Your task to perform on an android device: allow cookies in the chrome app Image 0: 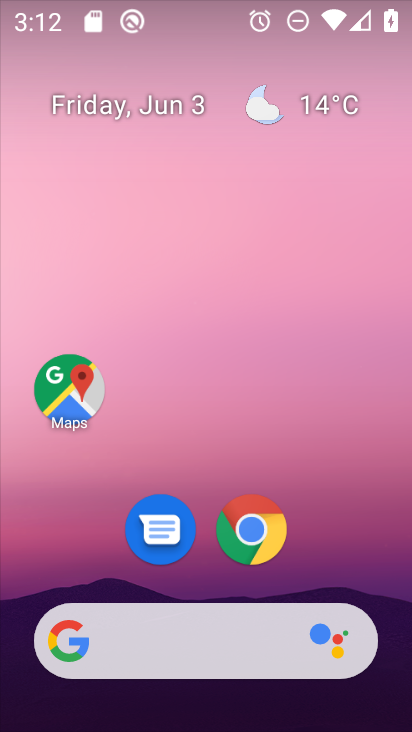
Step 0: drag from (354, 559) to (354, 245)
Your task to perform on an android device: allow cookies in the chrome app Image 1: 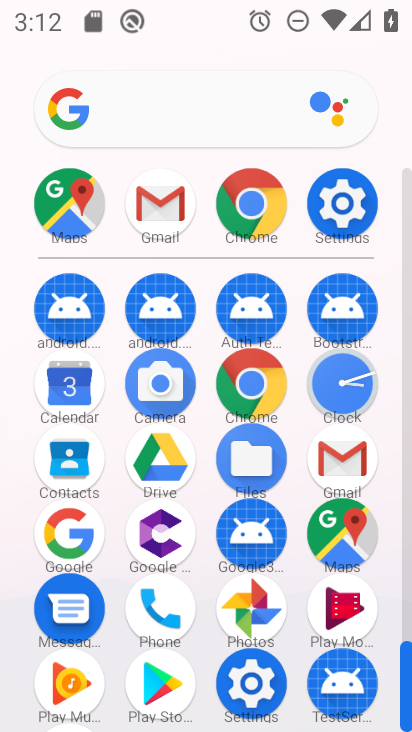
Step 1: click (268, 381)
Your task to perform on an android device: allow cookies in the chrome app Image 2: 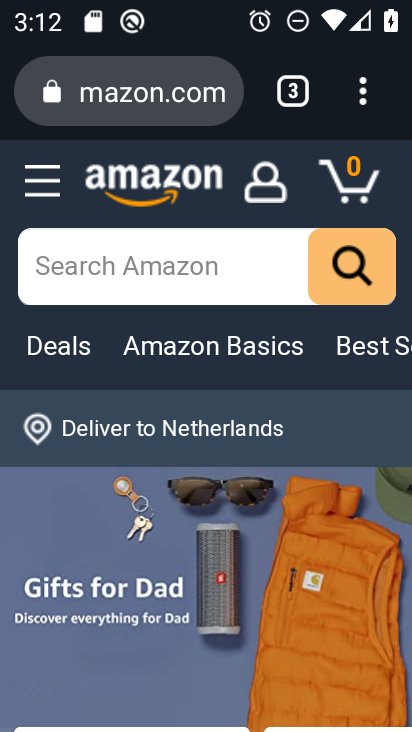
Step 2: click (365, 109)
Your task to perform on an android device: allow cookies in the chrome app Image 3: 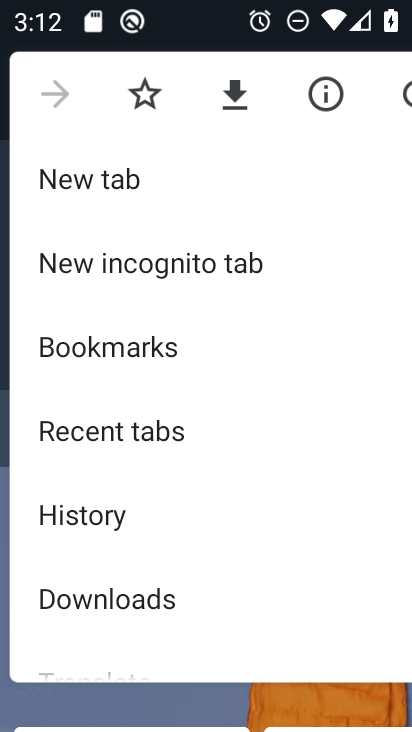
Step 3: drag from (312, 490) to (314, 352)
Your task to perform on an android device: allow cookies in the chrome app Image 4: 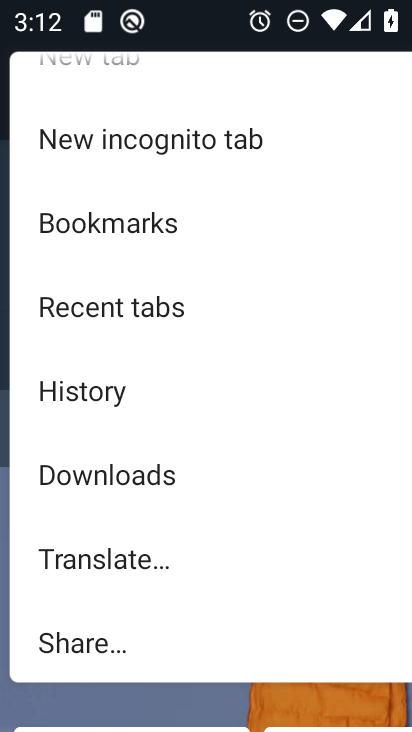
Step 4: drag from (322, 485) to (329, 351)
Your task to perform on an android device: allow cookies in the chrome app Image 5: 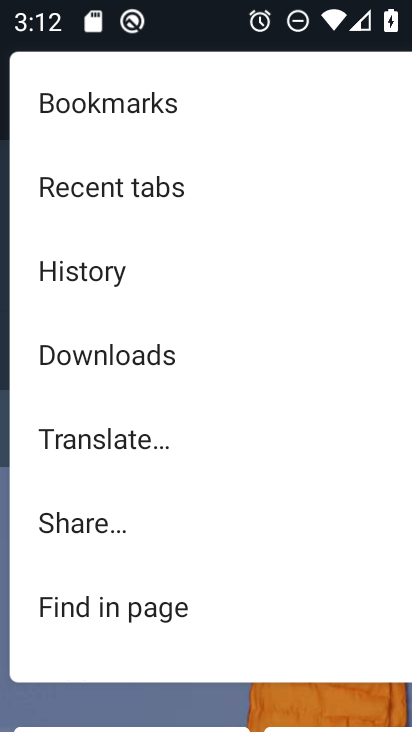
Step 5: drag from (303, 480) to (308, 352)
Your task to perform on an android device: allow cookies in the chrome app Image 6: 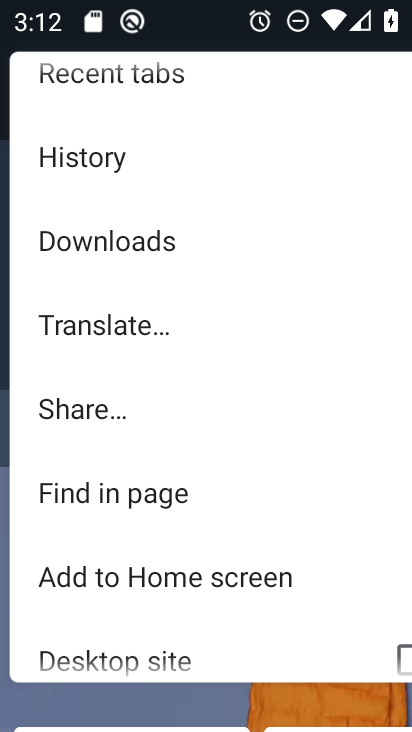
Step 6: drag from (305, 467) to (326, 262)
Your task to perform on an android device: allow cookies in the chrome app Image 7: 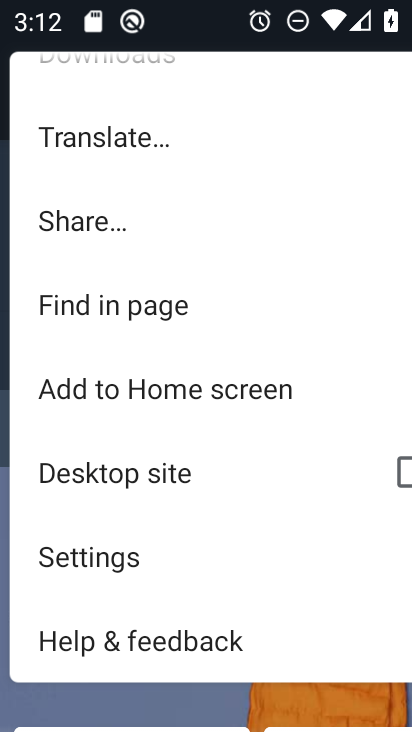
Step 7: drag from (308, 502) to (328, 374)
Your task to perform on an android device: allow cookies in the chrome app Image 8: 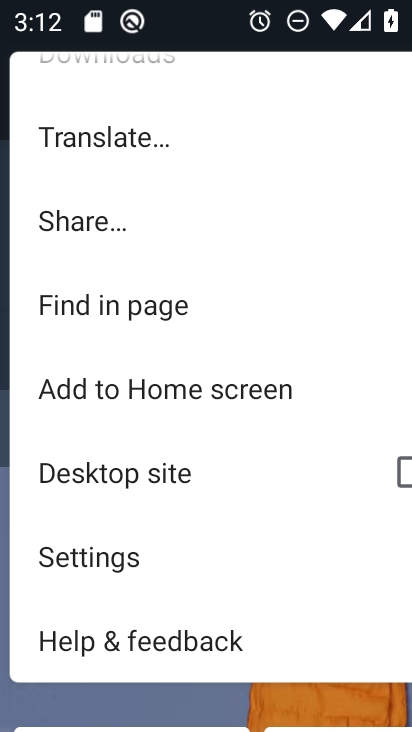
Step 8: click (163, 557)
Your task to perform on an android device: allow cookies in the chrome app Image 9: 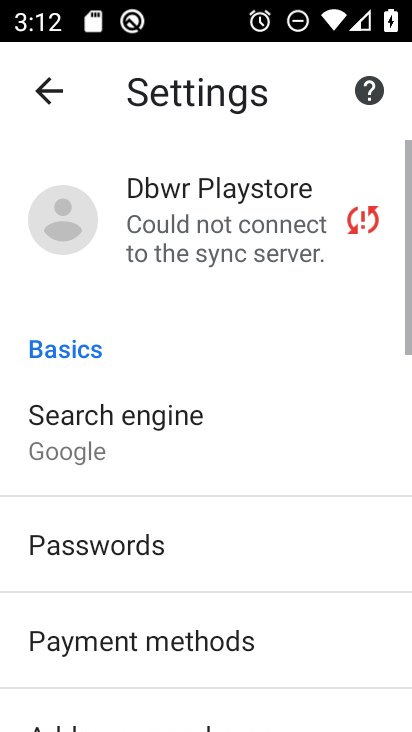
Step 9: drag from (304, 531) to (315, 393)
Your task to perform on an android device: allow cookies in the chrome app Image 10: 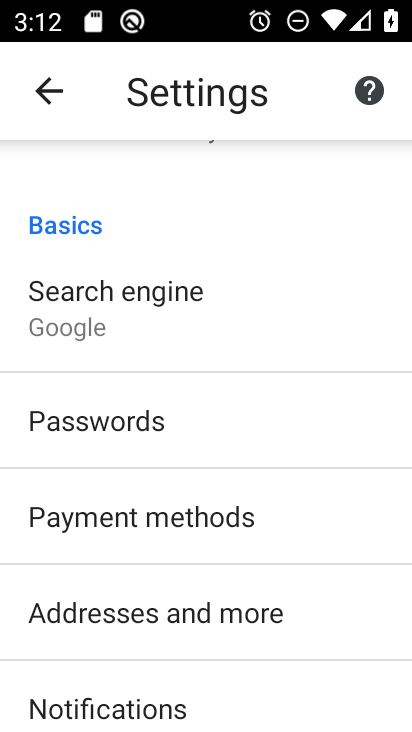
Step 10: drag from (306, 575) to (322, 476)
Your task to perform on an android device: allow cookies in the chrome app Image 11: 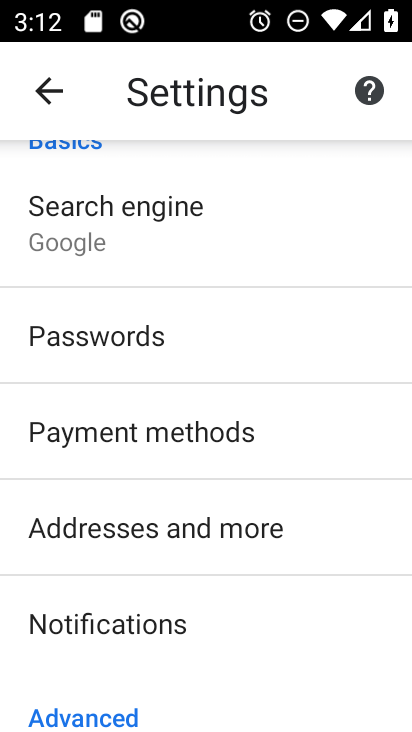
Step 11: drag from (324, 602) to (303, 399)
Your task to perform on an android device: allow cookies in the chrome app Image 12: 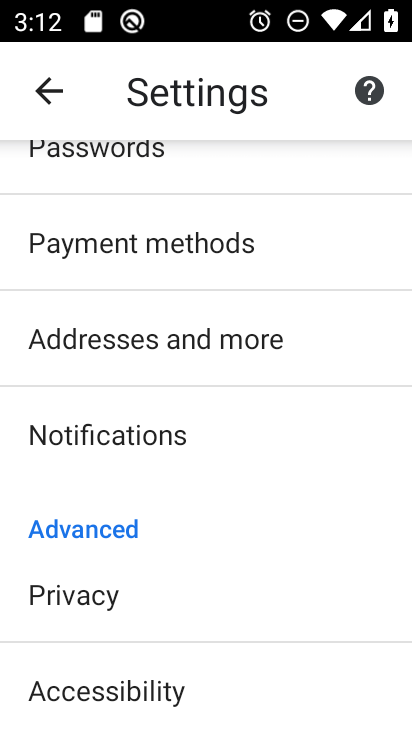
Step 12: drag from (293, 547) to (291, 343)
Your task to perform on an android device: allow cookies in the chrome app Image 13: 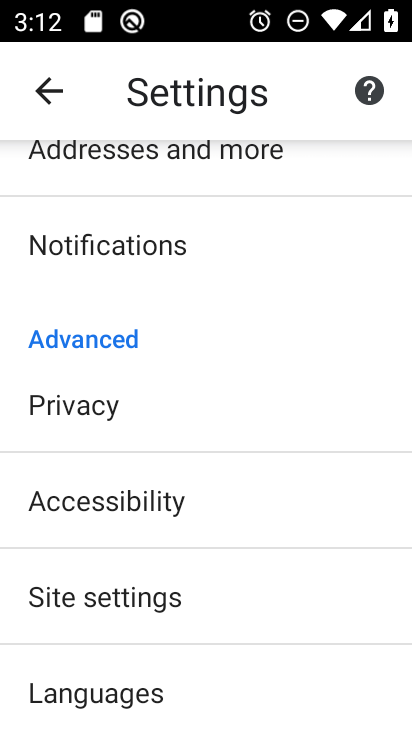
Step 13: drag from (292, 513) to (291, 357)
Your task to perform on an android device: allow cookies in the chrome app Image 14: 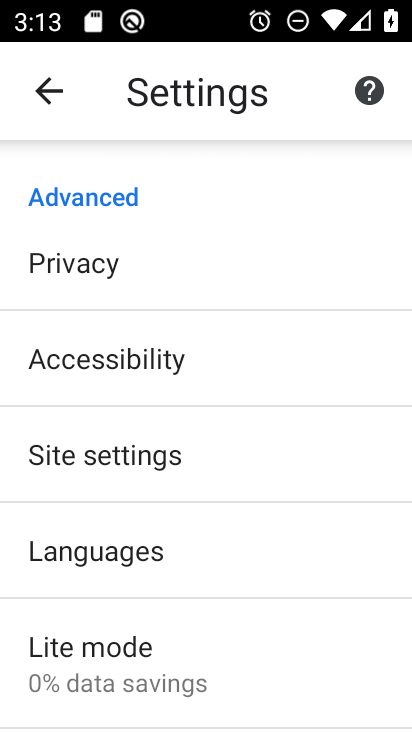
Step 14: drag from (317, 572) to (308, 405)
Your task to perform on an android device: allow cookies in the chrome app Image 15: 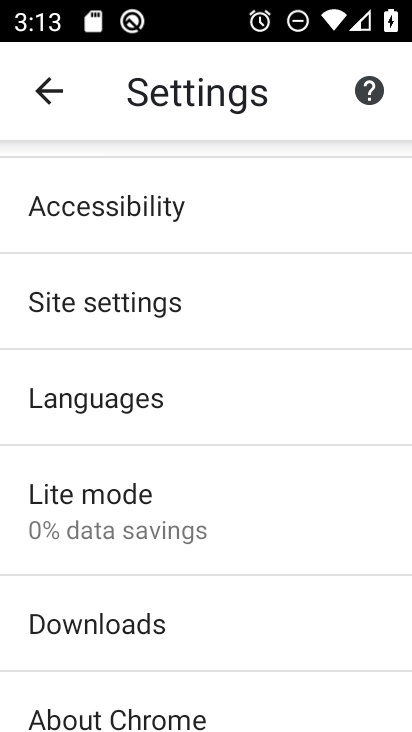
Step 15: drag from (302, 549) to (300, 461)
Your task to perform on an android device: allow cookies in the chrome app Image 16: 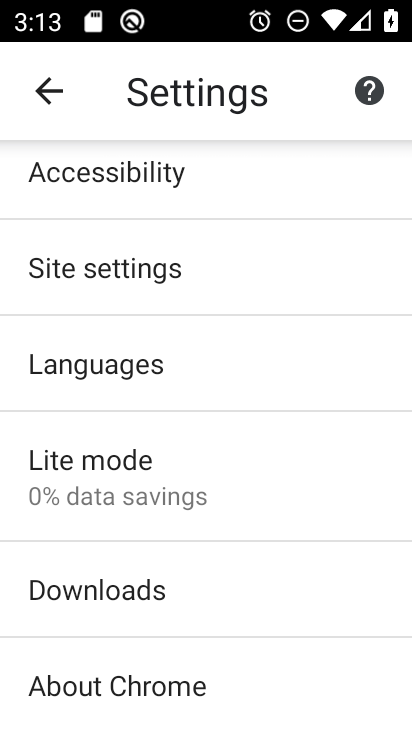
Step 16: drag from (298, 534) to (283, 409)
Your task to perform on an android device: allow cookies in the chrome app Image 17: 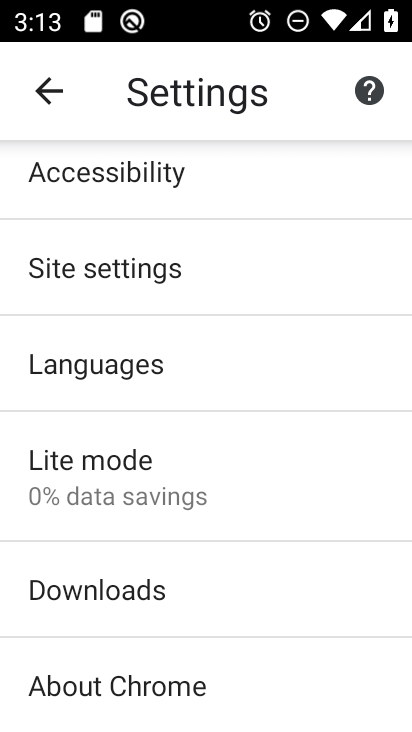
Step 17: click (232, 256)
Your task to perform on an android device: allow cookies in the chrome app Image 18: 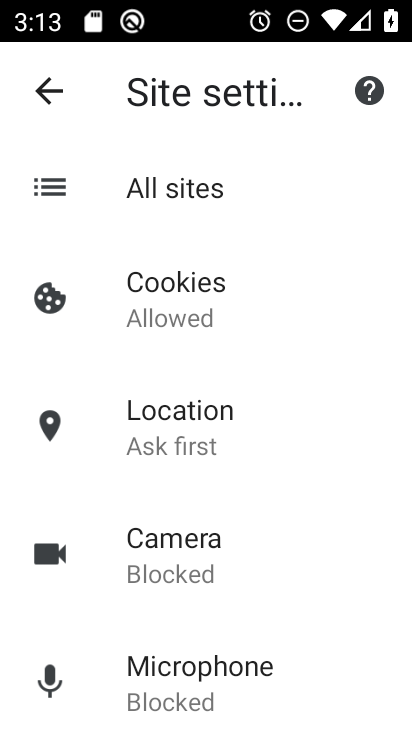
Step 18: drag from (290, 484) to (289, 333)
Your task to perform on an android device: allow cookies in the chrome app Image 19: 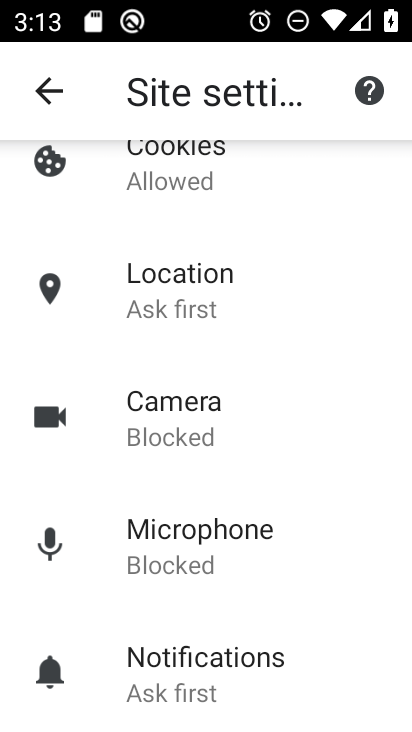
Step 19: drag from (290, 242) to (298, 351)
Your task to perform on an android device: allow cookies in the chrome app Image 20: 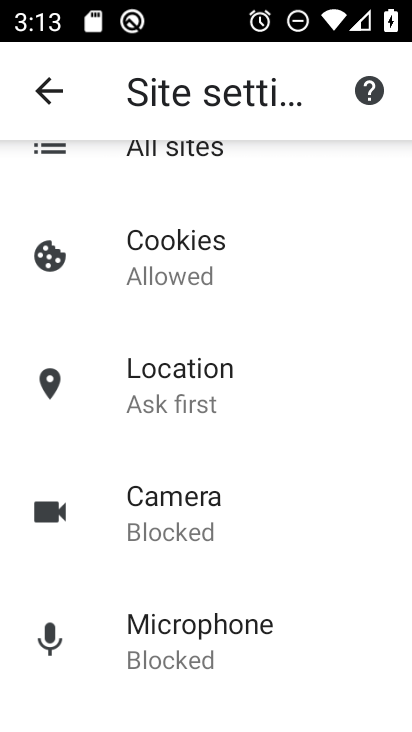
Step 20: click (199, 275)
Your task to perform on an android device: allow cookies in the chrome app Image 21: 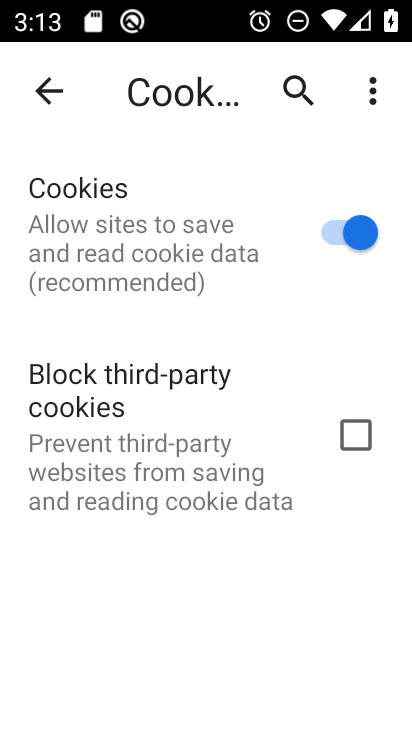
Step 21: task complete